Your task to perform on an android device: Set the phone to "Do not disturb". Image 0: 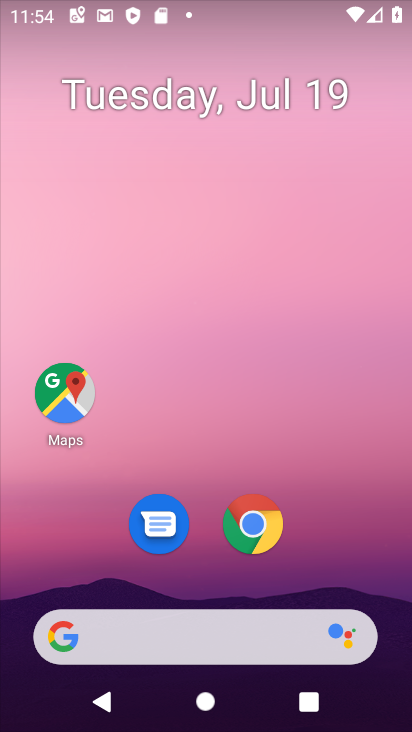
Step 0: drag from (231, 590) to (267, 69)
Your task to perform on an android device: Set the phone to "Do not disturb". Image 1: 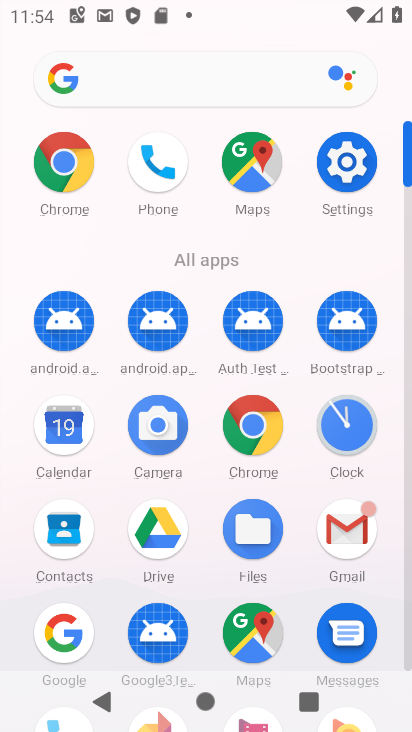
Step 1: click (342, 162)
Your task to perform on an android device: Set the phone to "Do not disturb". Image 2: 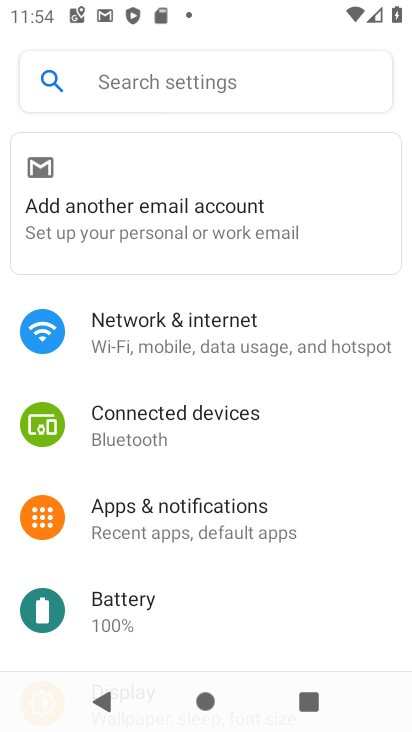
Step 2: drag from (239, 610) to (285, 138)
Your task to perform on an android device: Set the phone to "Do not disturb". Image 3: 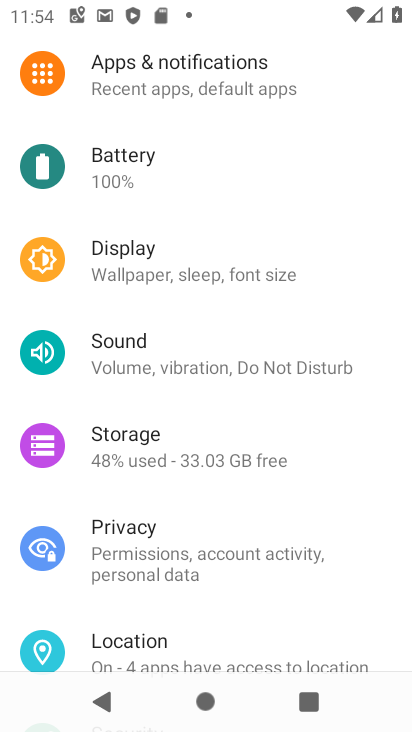
Step 3: click (150, 363)
Your task to perform on an android device: Set the phone to "Do not disturb". Image 4: 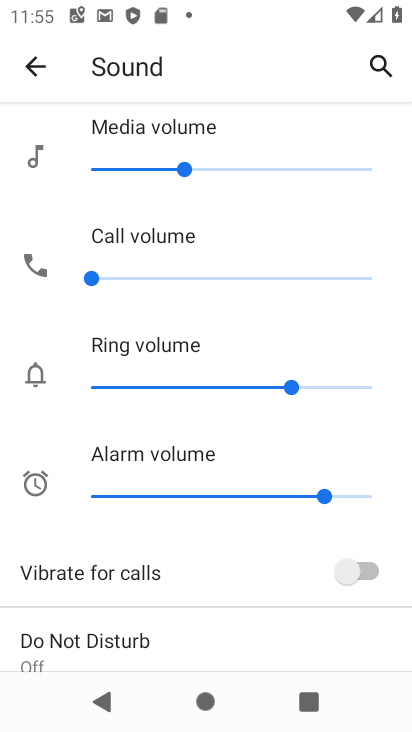
Step 4: drag from (204, 575) to (195, 329)
Your task to perform on an android device: Set the phone to "Do not disturb". Image 5: 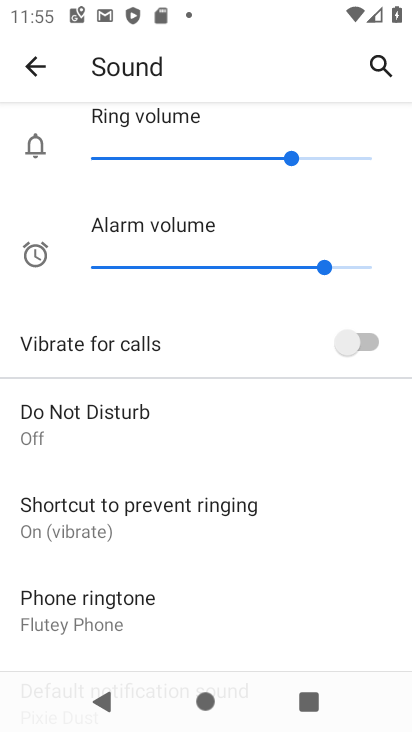
Step 5: click (86, 420)
Your task to perform on an android device: Set the phone to "Do not disturb". Image 6: 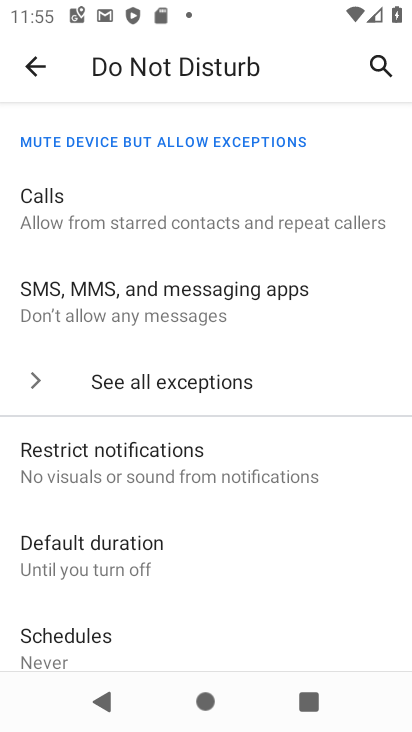
Step 6: drag from (182, 594) to (267, 132)
Your task to perform on an android device: Set the phone to "Do not disturb". Image 7: 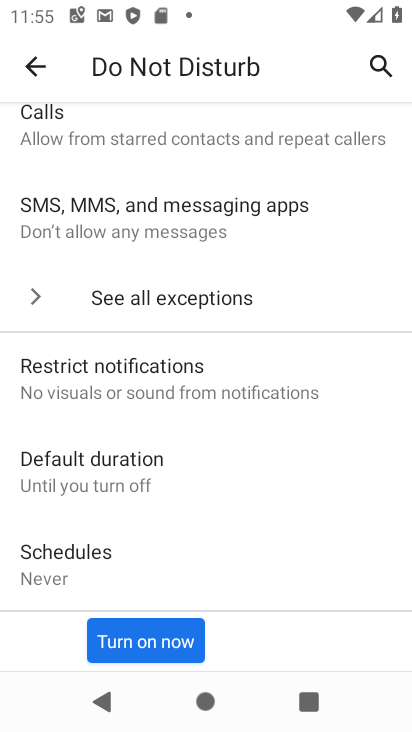
Step 7: click (170, 632)
Your task to perform on an android device: Set the phone to "Do not disturb". Image 8: 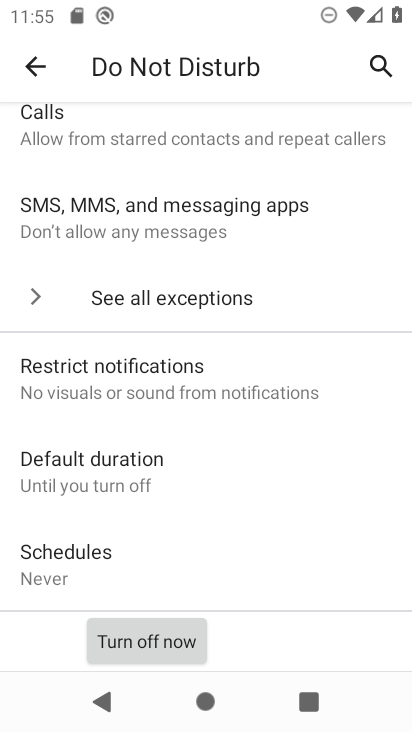
Step 8: task complete